Your task to perform on an android device: open the mobile data screen to see how much data has been used Image 0: 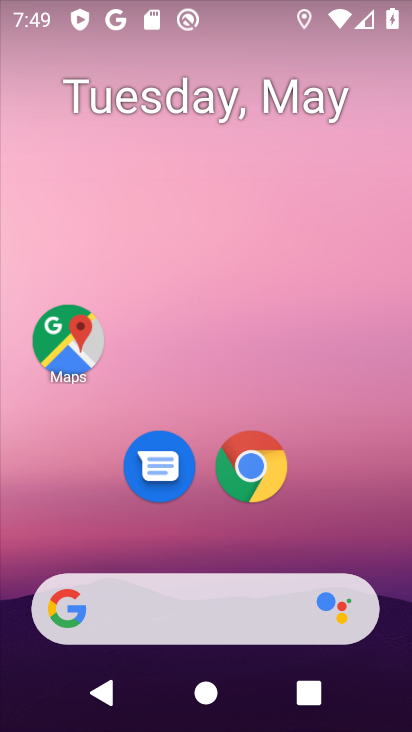
Step 0: drag from (201, 565) to (232, 147)
Your task to perform on an android device: open the mobile data screen to see how much data has been used Image 1: 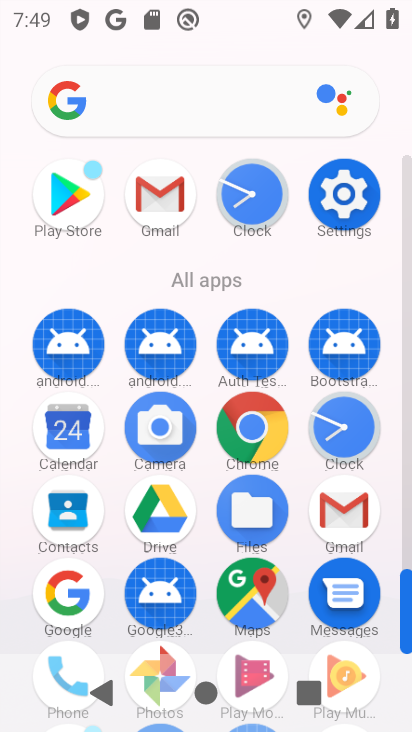
Step 1: click (351, 202)
Your task to perform on an android device: open the mobile data screen to see how much data has been used Image 2: 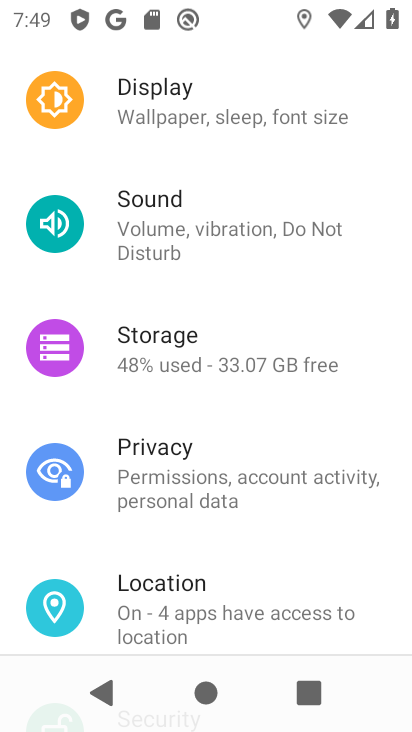
Step 2: drag from (266, 154) to (275, 586)
Your task to perform on an android device: open the mobile data screen to see how much data has been used Image 3: 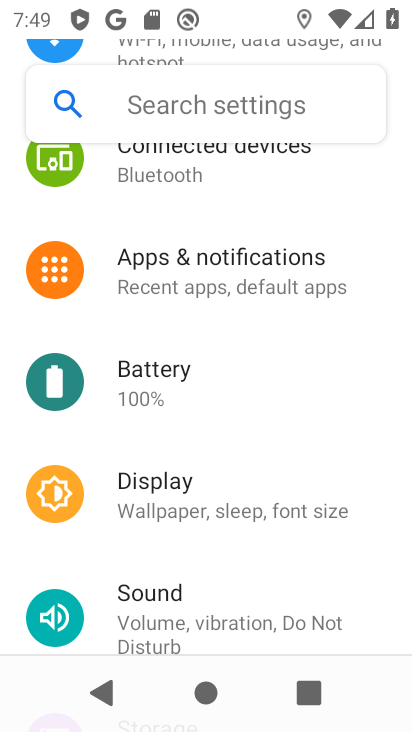
Step 3: drag from (260, 155) to (226, 544)
Your task to perform on an android device: open the mobile data screen to see how much data has been used Image 4: 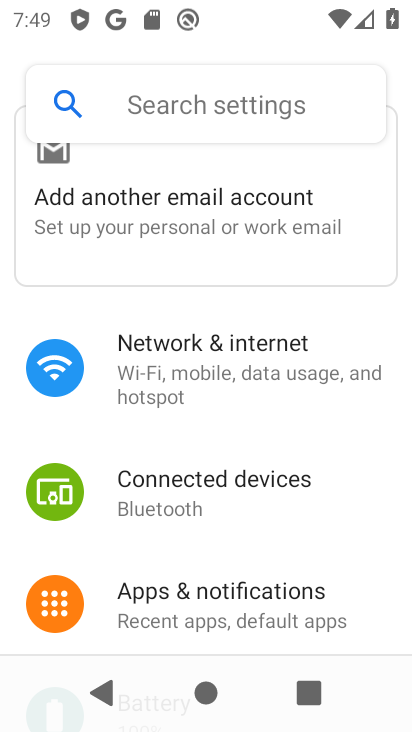
Step 4: click (191, 373)
Your task to perform on an android device: open the mobile data screen to see how much data has been used Image 5: 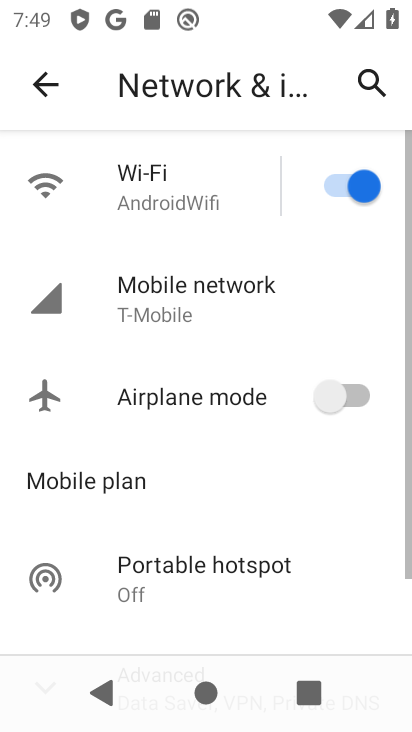
Step 5: click (175, 302)
Your task to perform on an android device: open the mobile data screen to see how much data has been used Image 6: 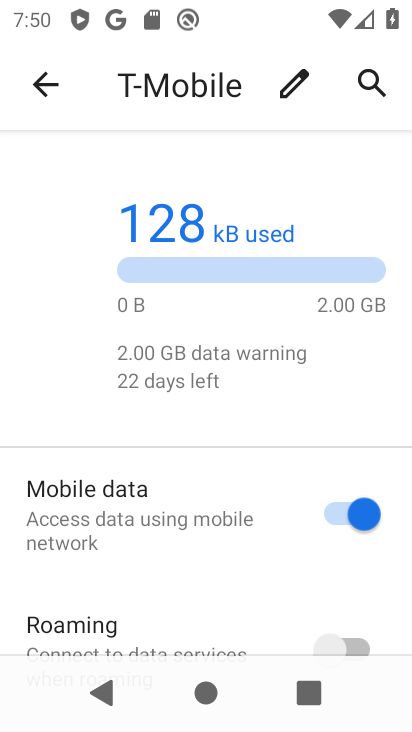
Step 6: task complete